Your task to perform on an android device: Add "razer huntsman" to the cart on newegg.com Image 0: 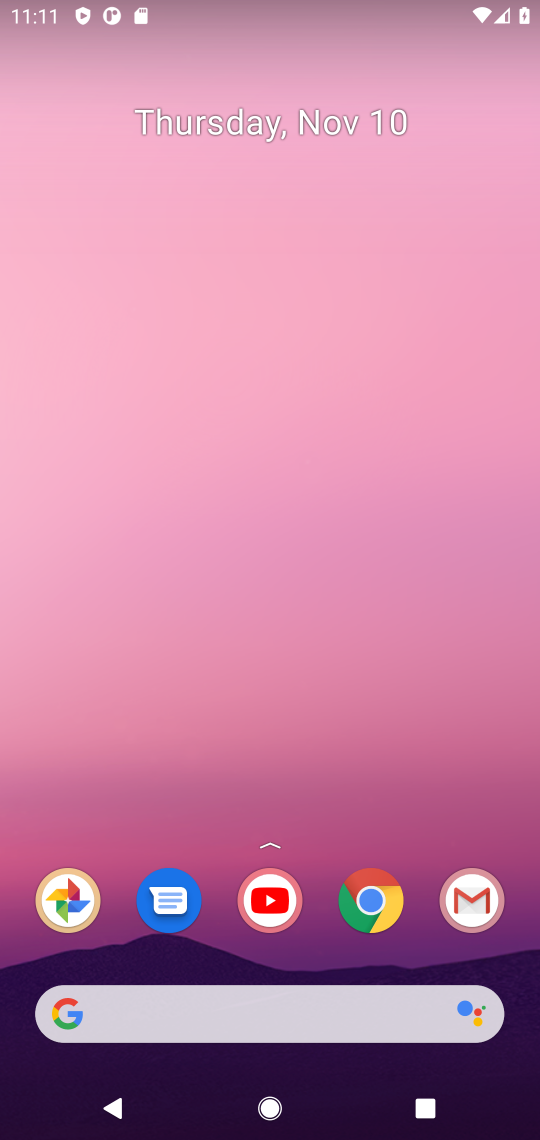
Step 0: click (366, 912)
Your task to perform on an android device: Add "razer huntsman" to the cart on newegg.com Image 1: 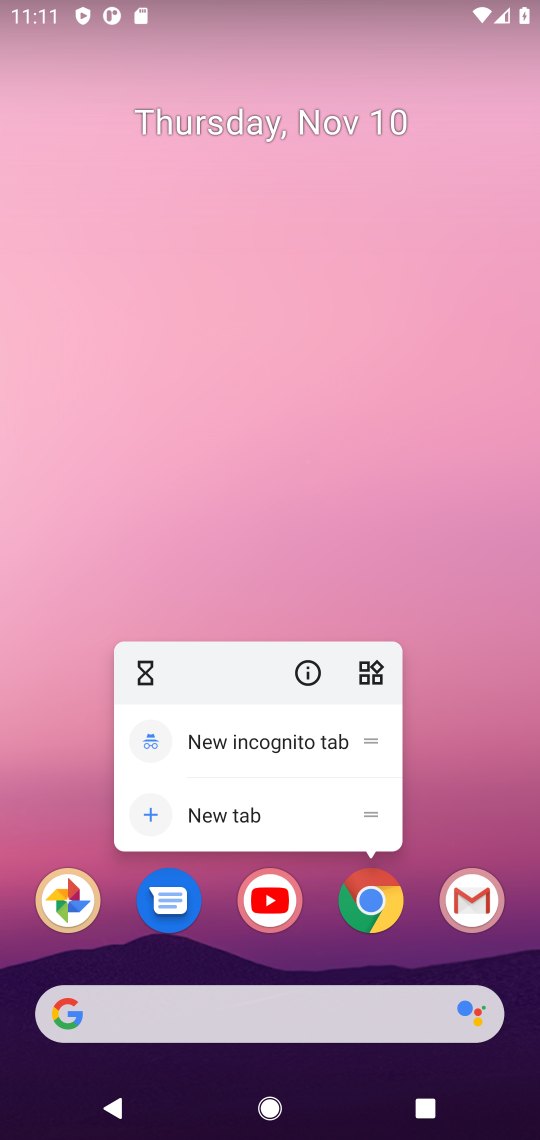
Step 1: click (370, 905)
Your task to perform on an android device: Add "razer huntsman" to the cart on newegg.com Image 2: 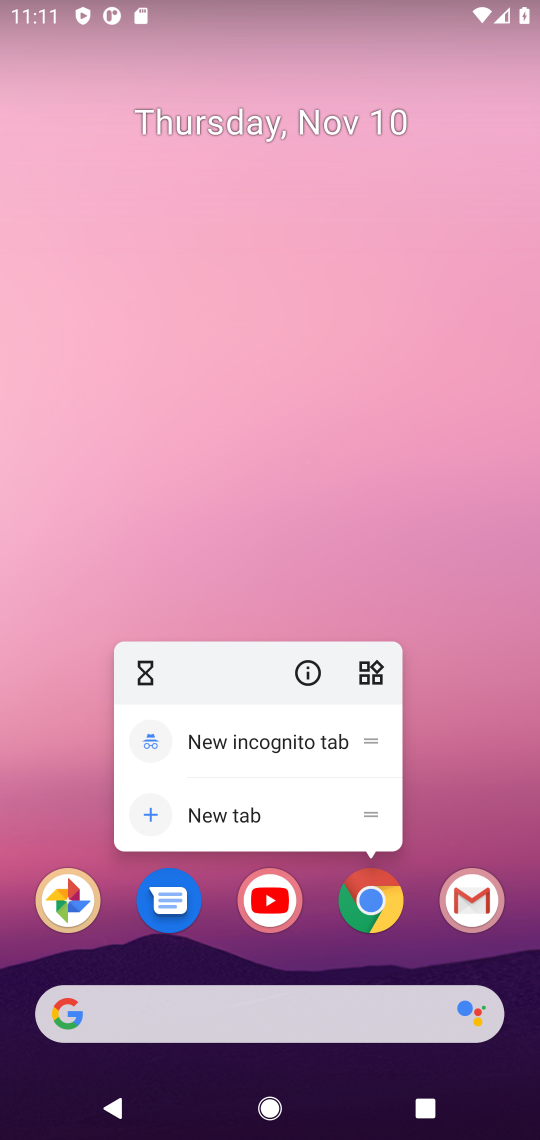
Step 2: click (375, 895)
Your task to perform on an android device: Add "razer huntsman" to the cart on newegg.com Image 3: 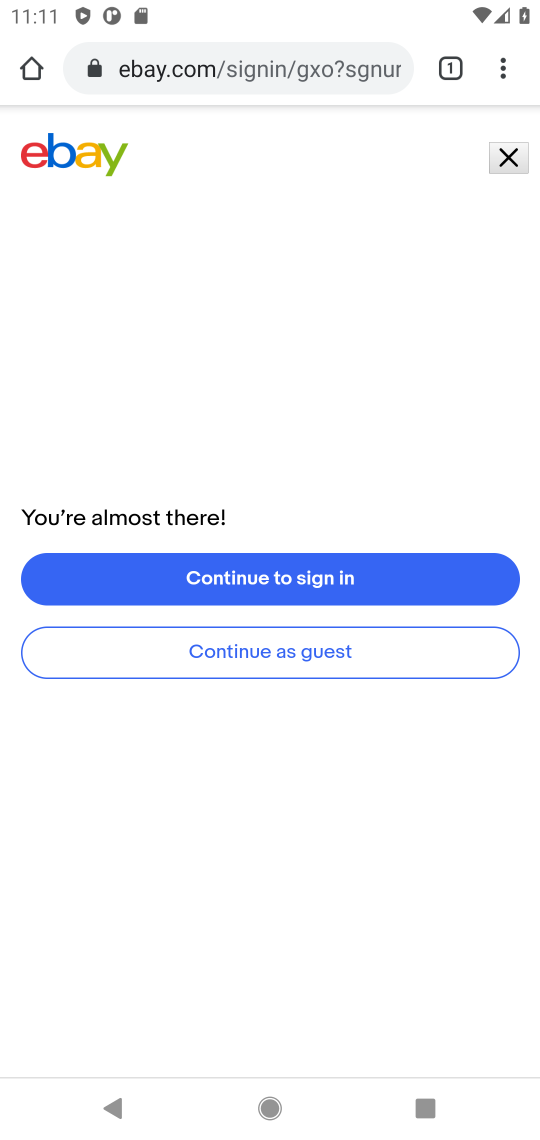
Step 3: click (307, 65)
Your task to perform on an android device: Add "razer huntsman" to the cart on newegg.com Image 4: 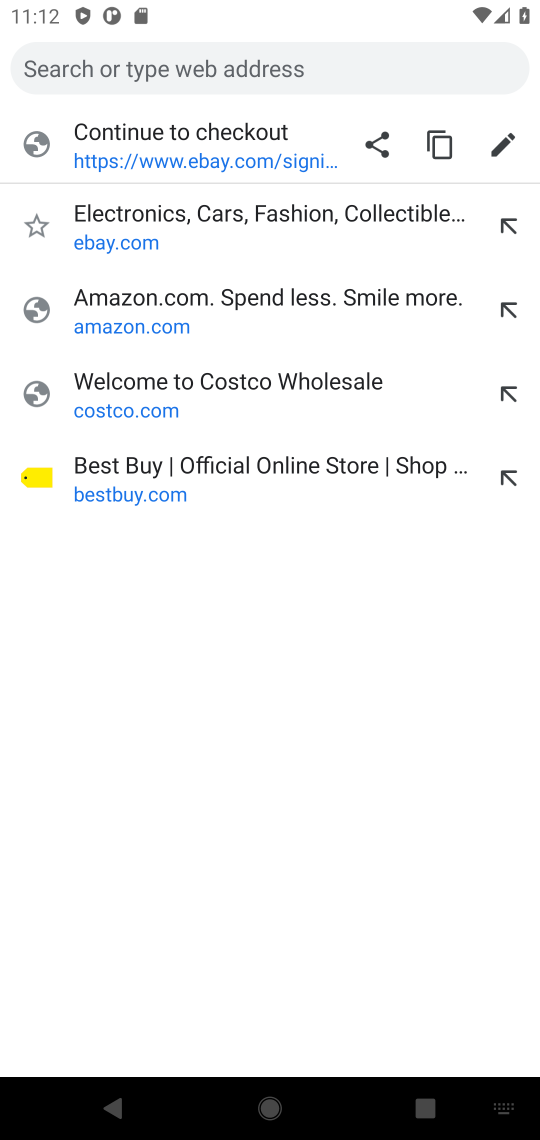
Step 4: type "newegg.com"
Your task to perform on an android device: Add "razer huntsman" to the cart on newegg.com Image 5: 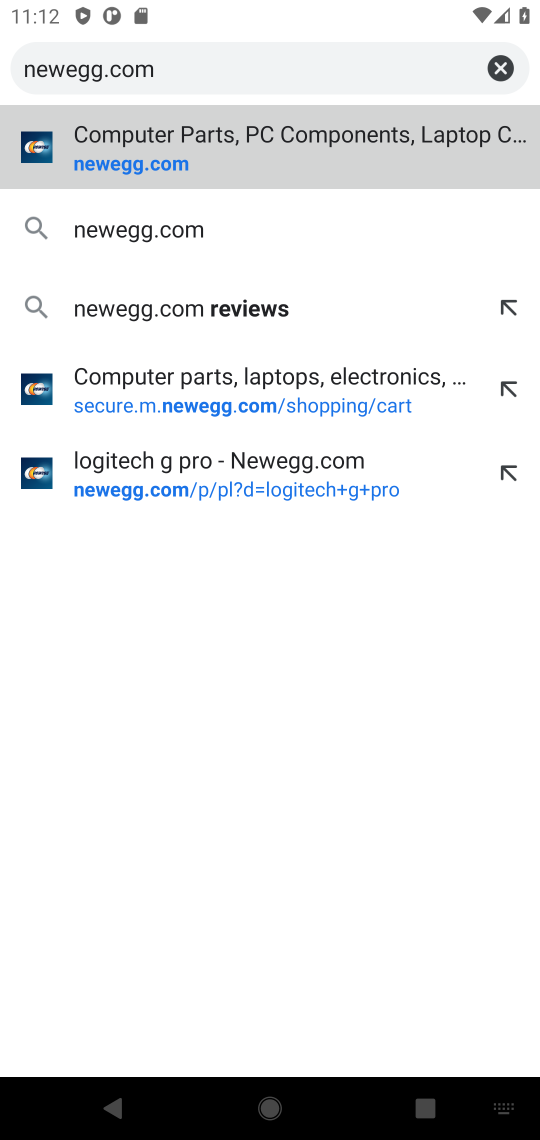
Step 5: press enter
Your task to perform on an android device: Add "razer huntsman" to the cart on newegg.com Image 6: 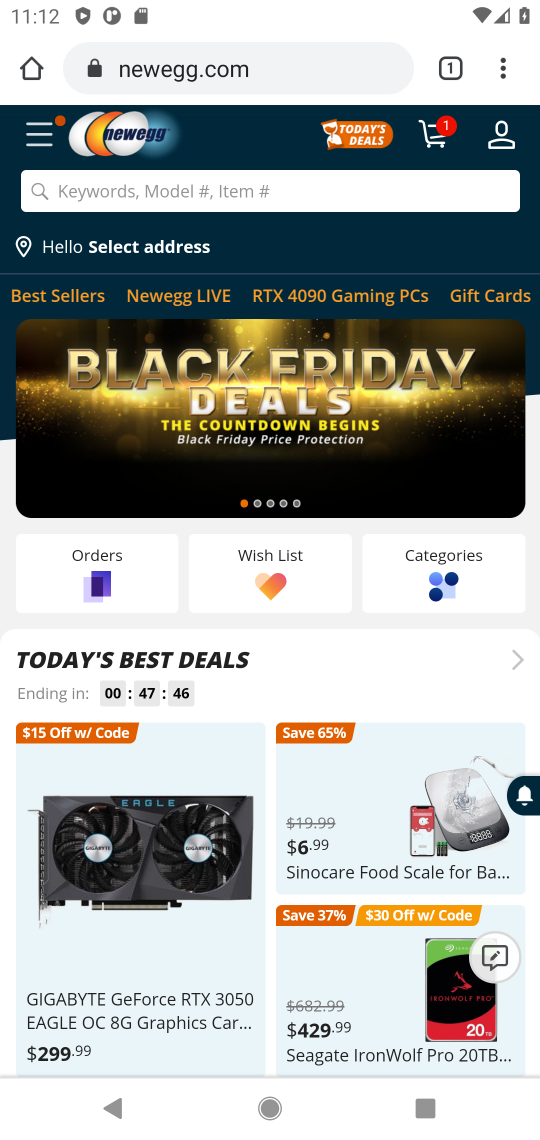
Step 6: click (133, 179)
Your task to perform on an android device: Add "razer huntsman" to the cart on newegg.com Image 7: 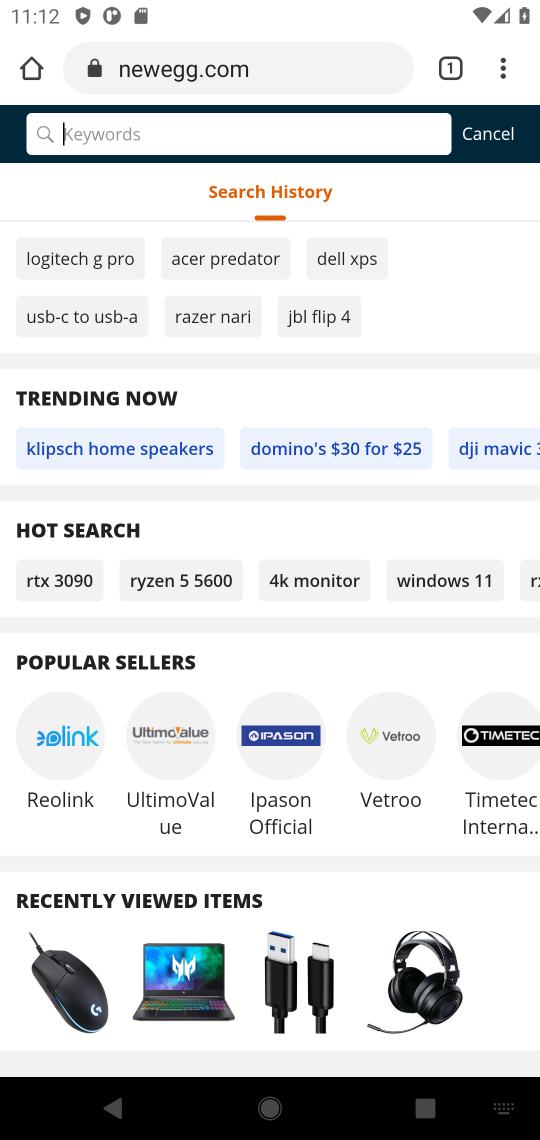
Step 7: type "razer huntsman"
Your task to perform on an android device: Add "razer huntsman" to the cart on newegg.com Image 8: 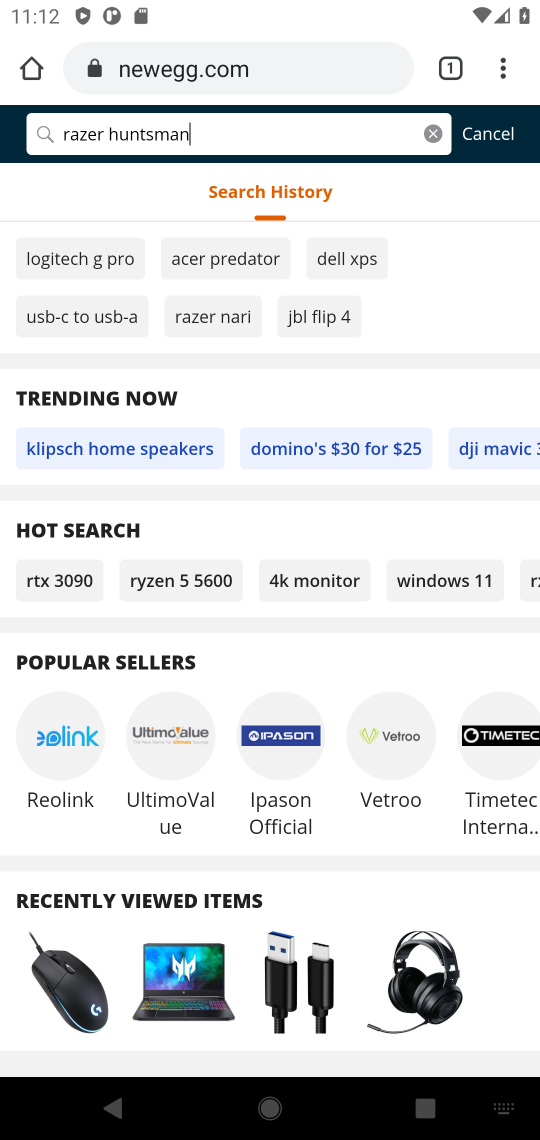
Step 8: press enter
Your task to perform on an android device: Add "razer huntsman" to the cart on newegg.com Image 9: 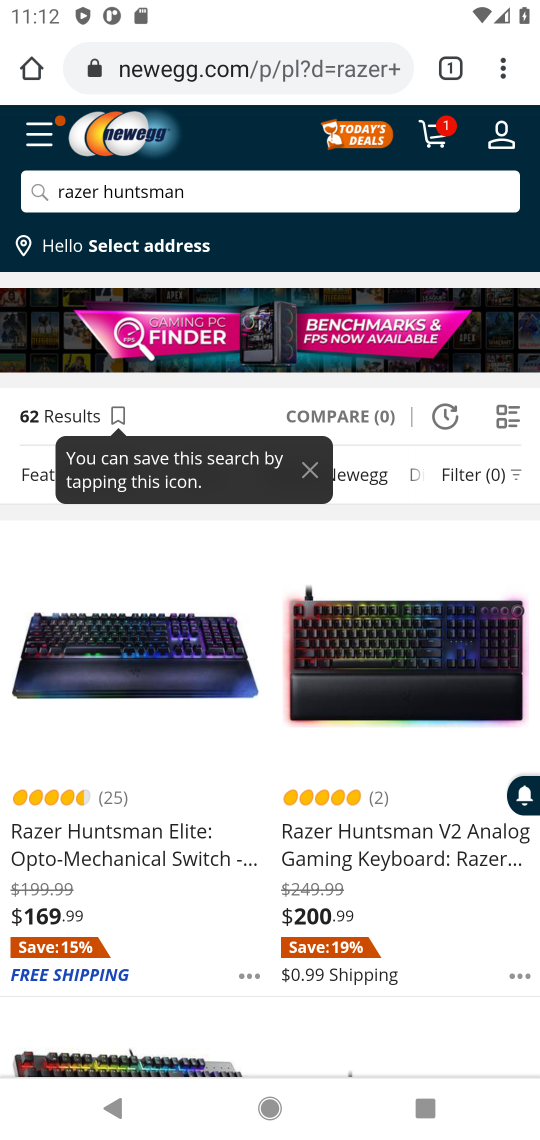
Step 9: click (130, 844)
Your task to perform on an android device: Add "razer huntsman" to the cart on newegg.com Image 10: 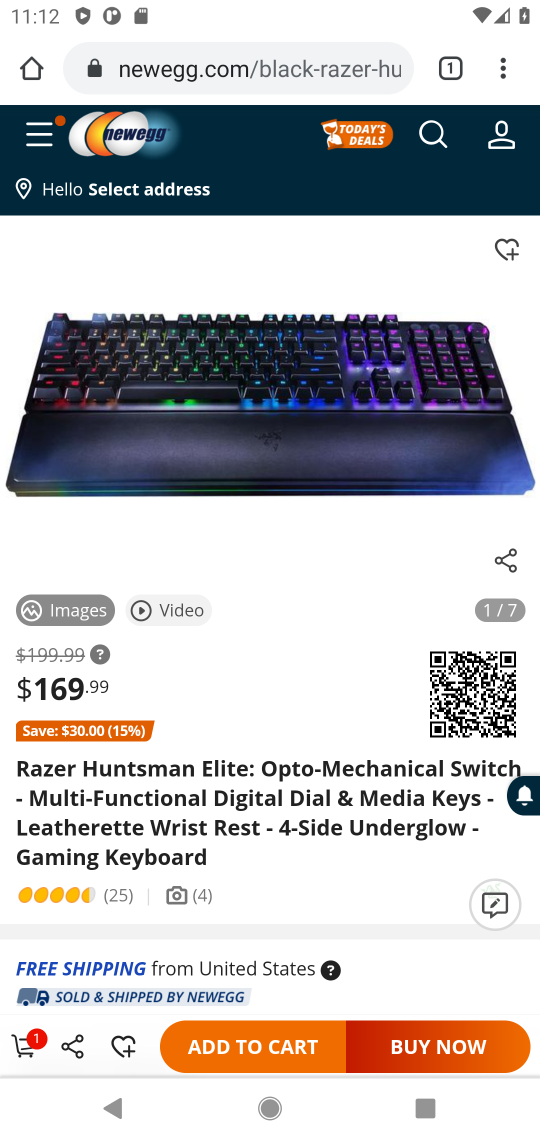
Step 10: click (259, 1045)
Your task to perform on an android device: Add "razer huntsman" to the cart on newegg.com Image 11: 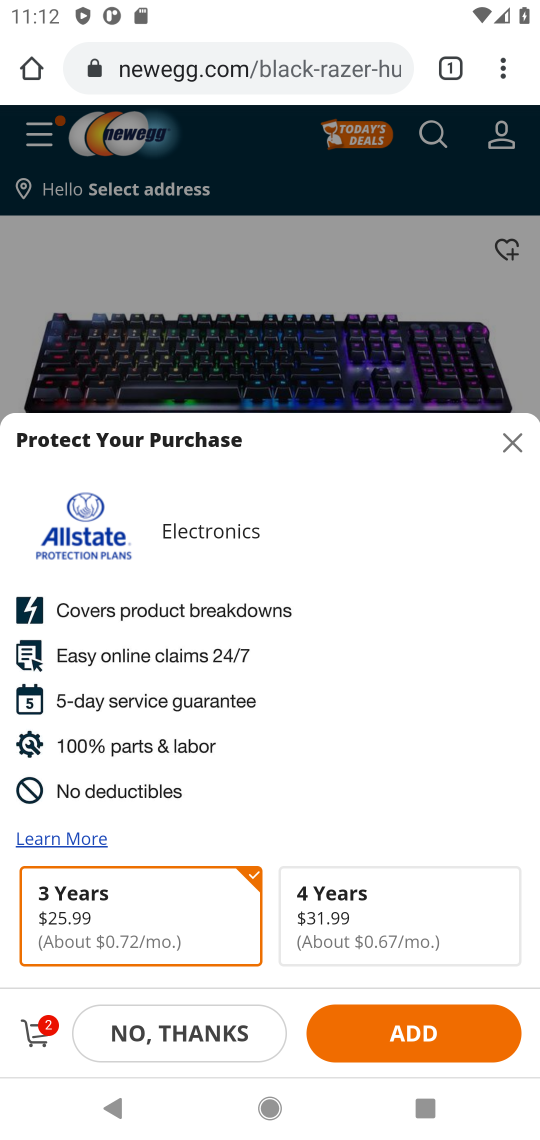
Step 11: click (33, 1030)
Your task to perform on an android device: Add "razer huntsman" to the cart on newegg.com Image 12: 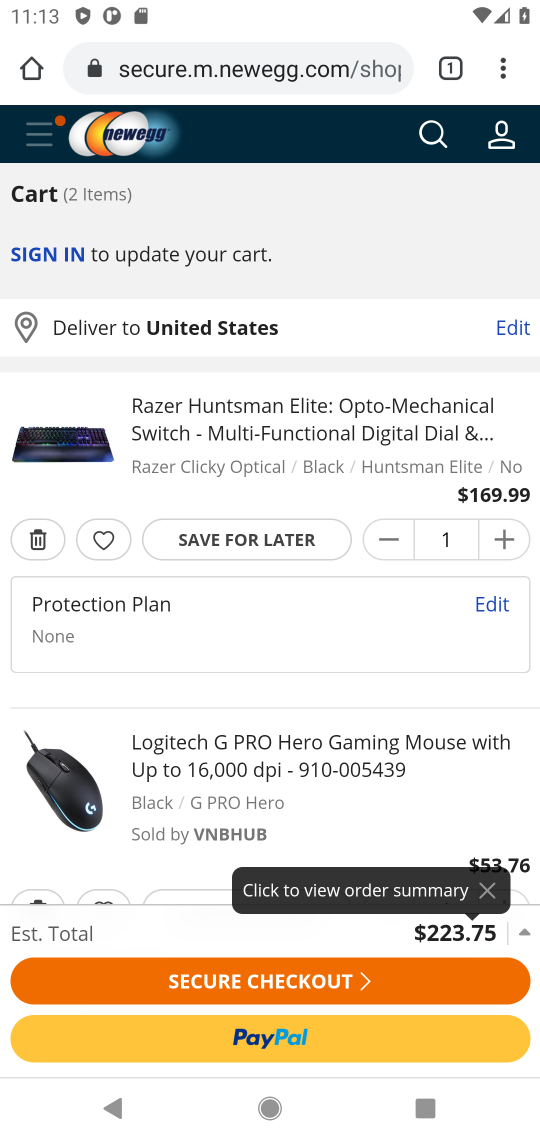
Step 12: click (38, 907)
Your task to perform on an android device: Add "razer huntsman" to the cart on newegg.com Image 13: 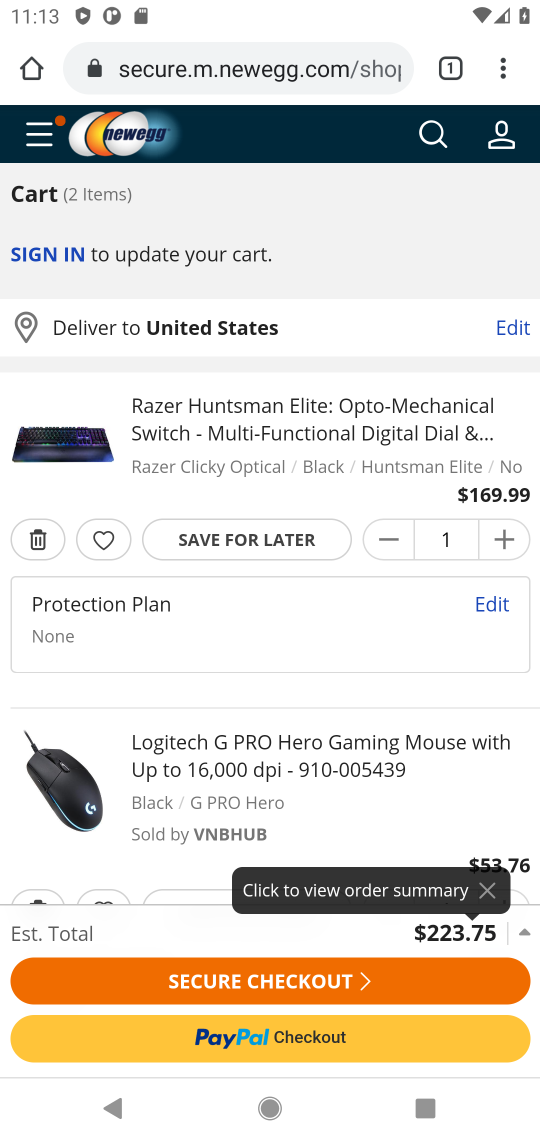
Step 13: drag from (195, 817) to (364, 548)
Your task to perform on an android device: Add "razer huntsman" to the cart on newegg.com Image 14: 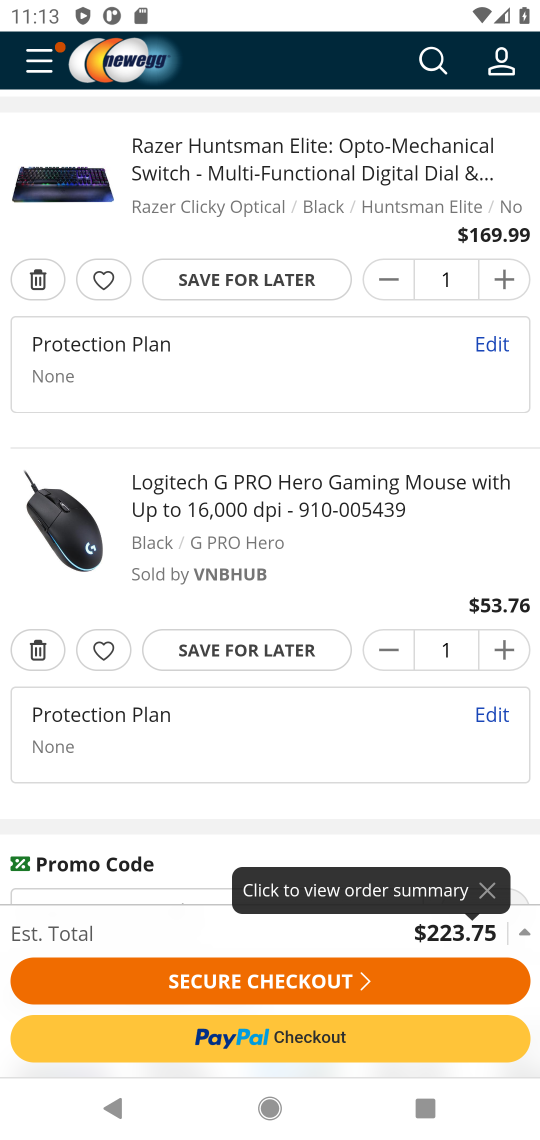
Step 14: click (35, 651)
Your task to perform on an android device: Add "razer huntsman" to the cart on newegg.com Image 15: 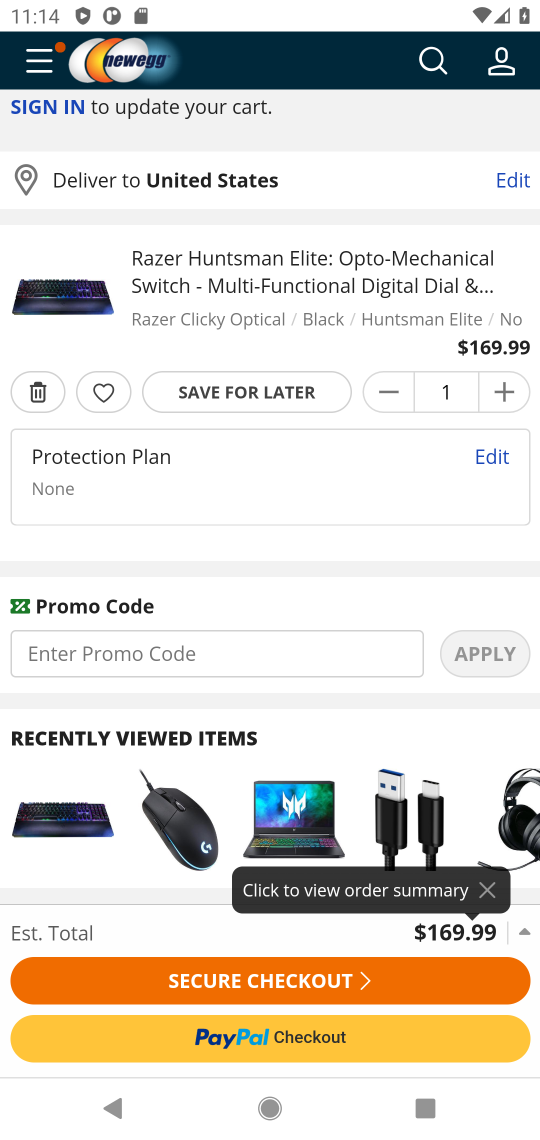
Step 15: task complete